Your task to perform on an android device: check google app version Image 0: 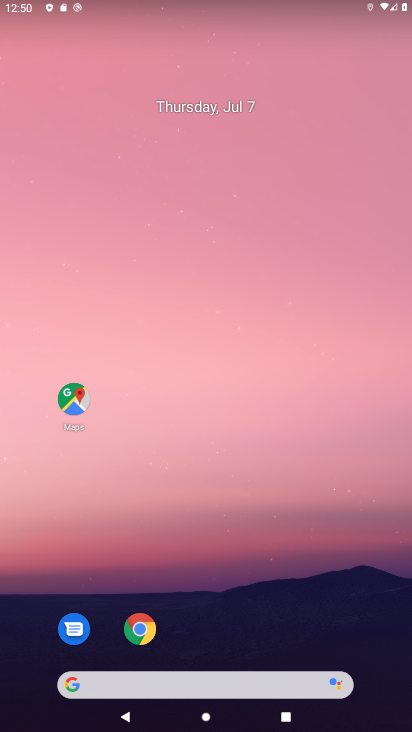
Step 0: drag from (193, 648) to (205, 148)
Your task to perform on an android device: check google app version Image 1: 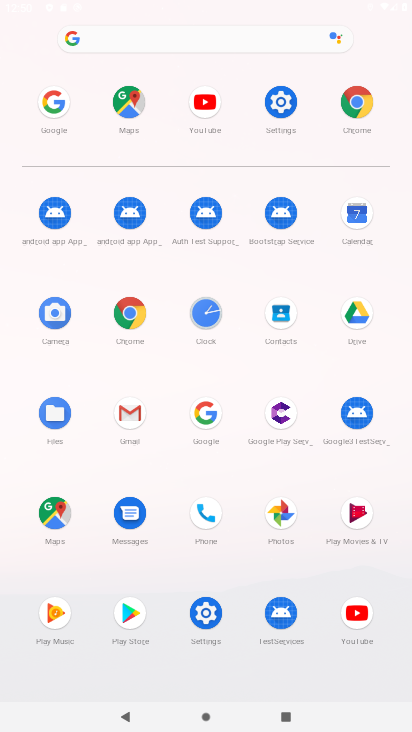
Step 1: click (202, 414)
Your task to perform on an android device: check google app version Image 2: 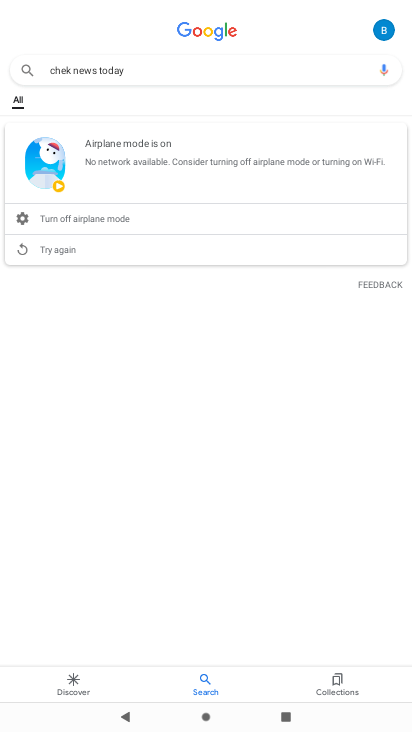
Step 2: click (382, 21)
Your task to perform on an android device: check google app version Image 3: 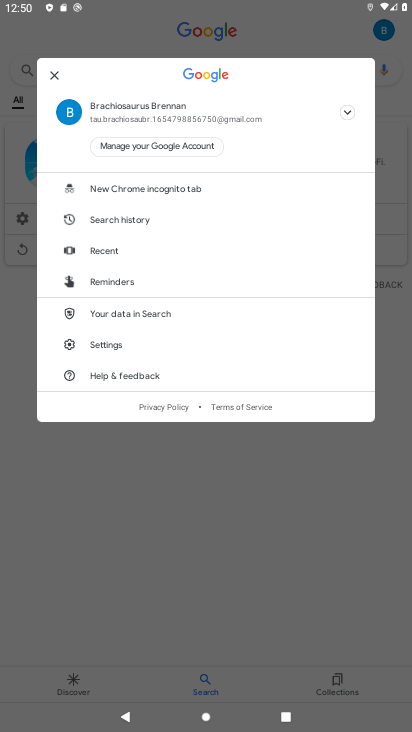
Step 3: click (107, 341)
Your task to perform on an android device: check google app version Image 4: 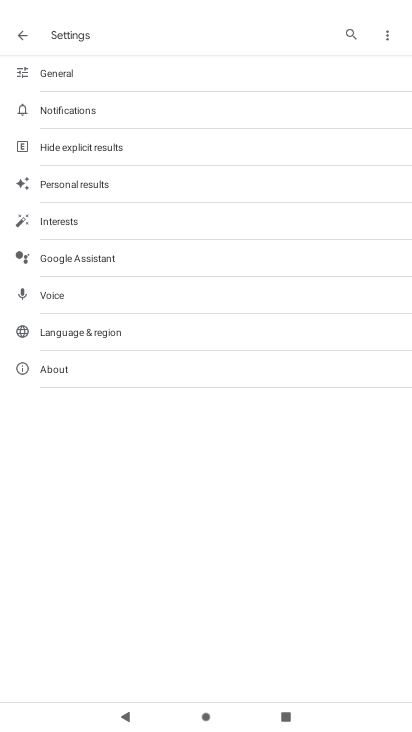
Step 4: click (64, 368)
Your task to perform on an android device: check google app version Image 5: 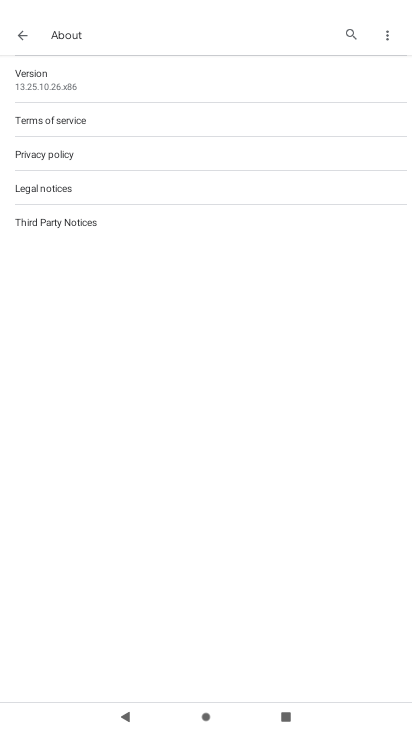
Step 5: click (46, 85)
Your task to perform on an android device: check google app version Image 6: 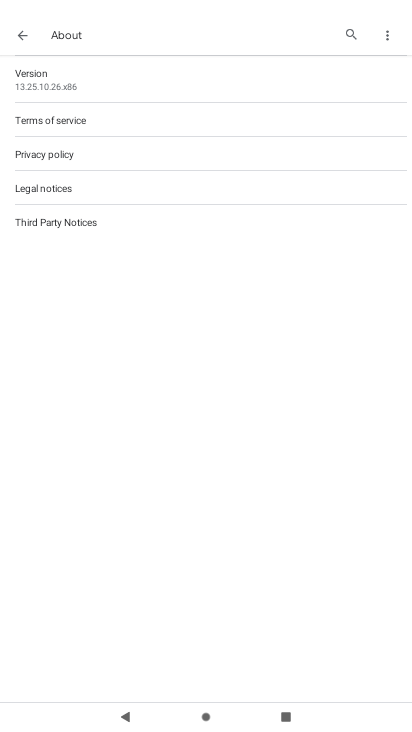
Step 6: task complete